Your task to perform on an android device: Do I have any events tomorrow? Image 0: 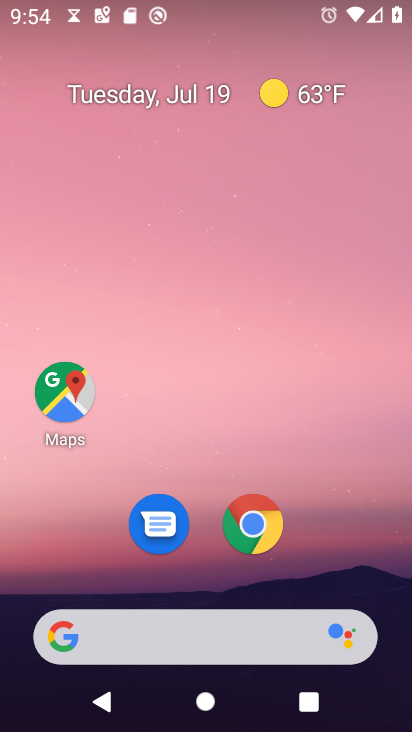
Step 0: press home button
Your task to perform on an android device: Do I have any events tomorrow? Image 1: 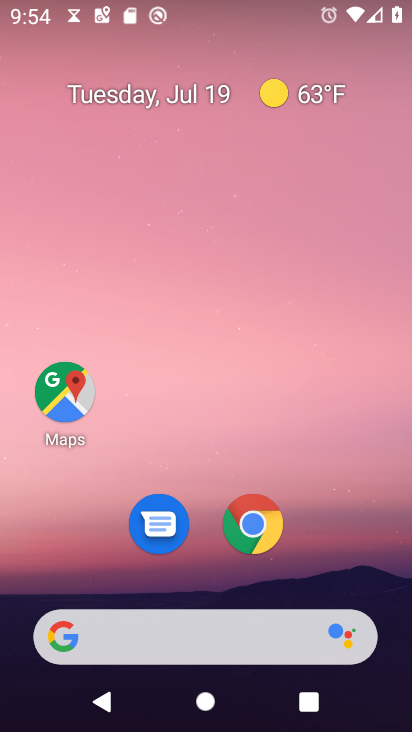
Step 1: drag from (196, 641) to (322, 201)
Your task to perform on an android device: Do I have any events tomorrow? Image 2: 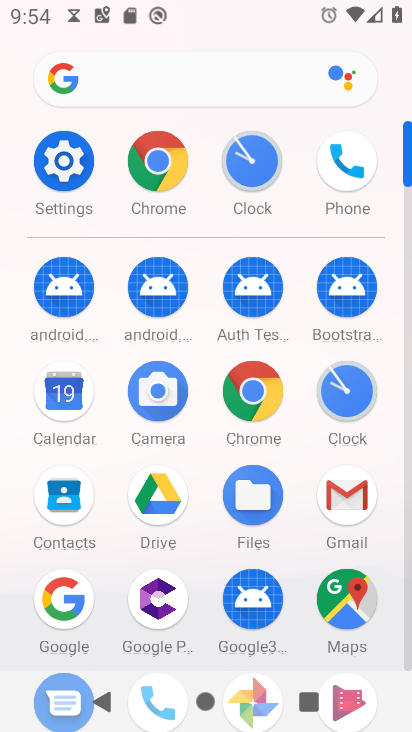
Step 2: click (63, 392)
Your task to perform on an android device: Do I have any events tomorrow? Image 3: 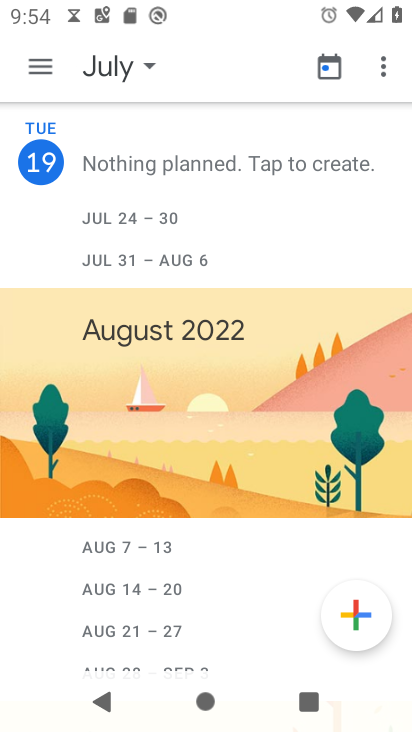
Step 3: click (112, 57)
Your task to perform on an android device: Do I have any events tomorrow? Image 4: 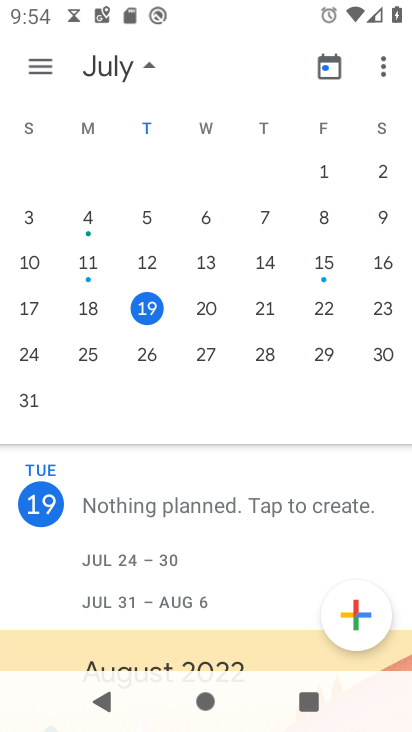
Step 4: click (205, 317)
Your task to perform on an android device: Do I have any events tomorrow? Image 5: 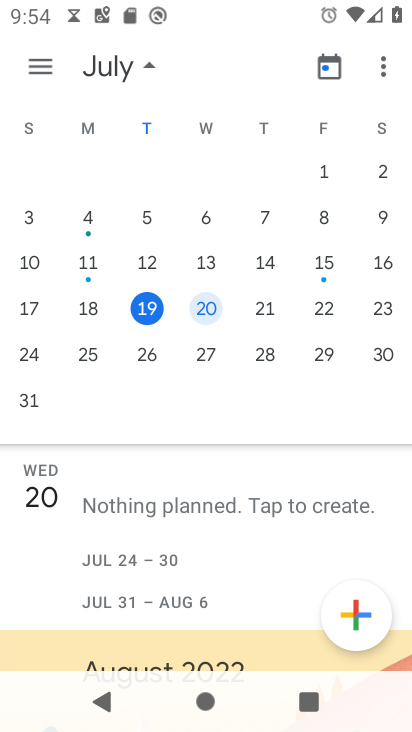
Step 5: click (32, 68)
Your task to perform on an android device: Do I have any events tomorrow? Image 6: 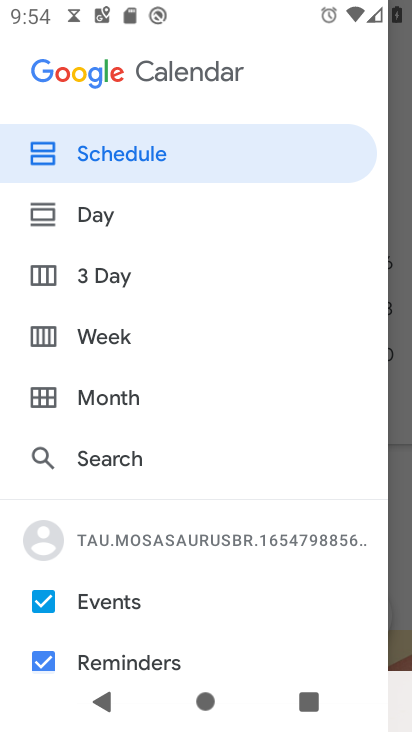
Step 6: click (127, 160)
Your task to perform on an android device: Do I have any events tomorrow? Image 7: 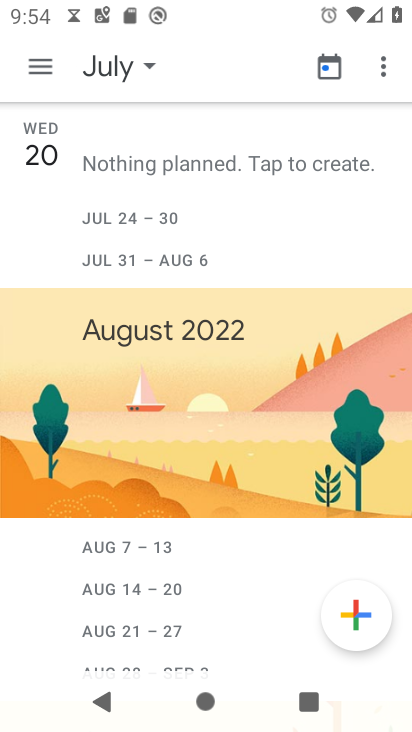
Step 7: task complete